Your task to perform on an android device: clear all cookies in the chrome app Image 0: 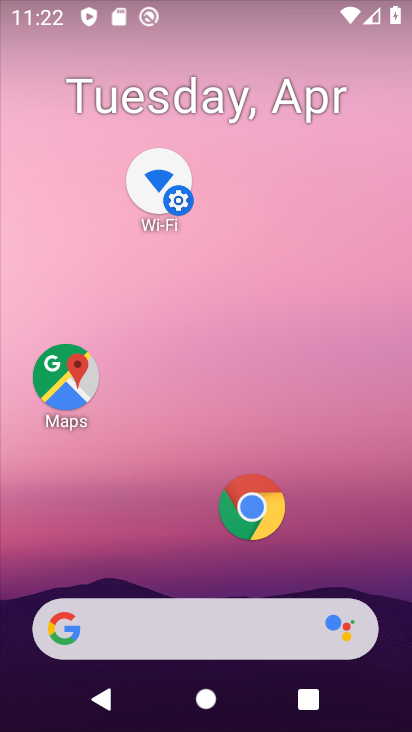
Step 0: click (257, 504)
Your task to perform on an android device: clear all cookies in the chrome app Image 1: 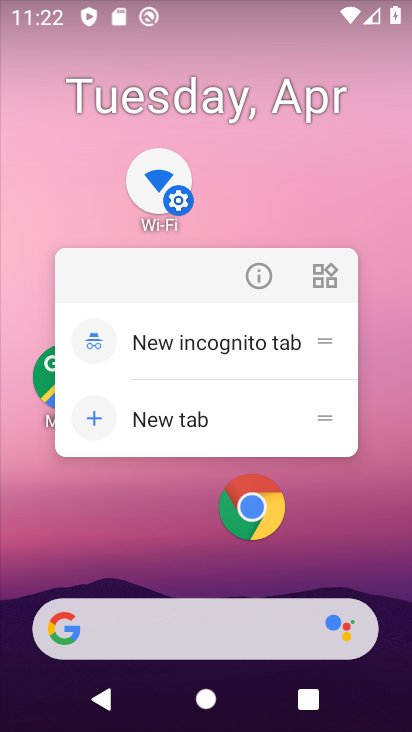
Step 1: click (246, 497)
Your task to perform on an android device: clear all cookies in the chrome app Image 2: 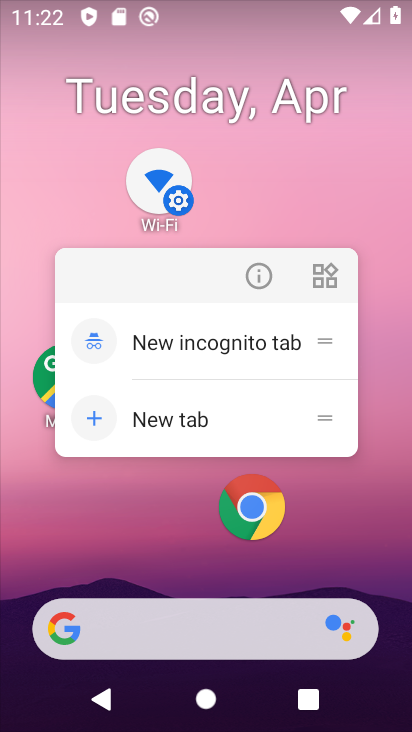
Step 2: click (246, 496)
Your task to perform on an android device: clear all cookies in the chrome app Image 3: 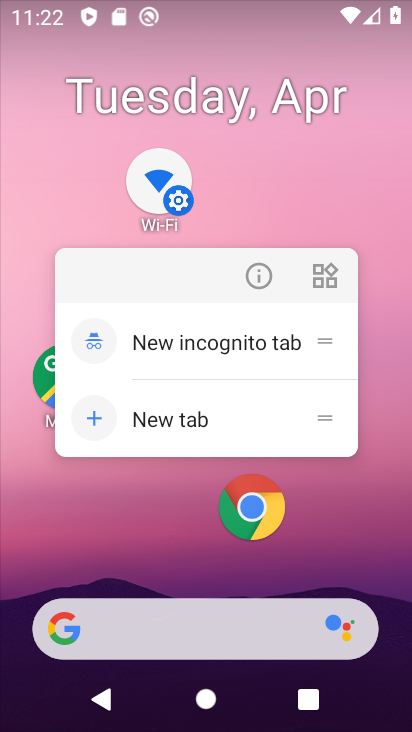
Step 3: click (246, 493)
Your task to perform on an android device: clear all cookies in the chrome app Image 4: 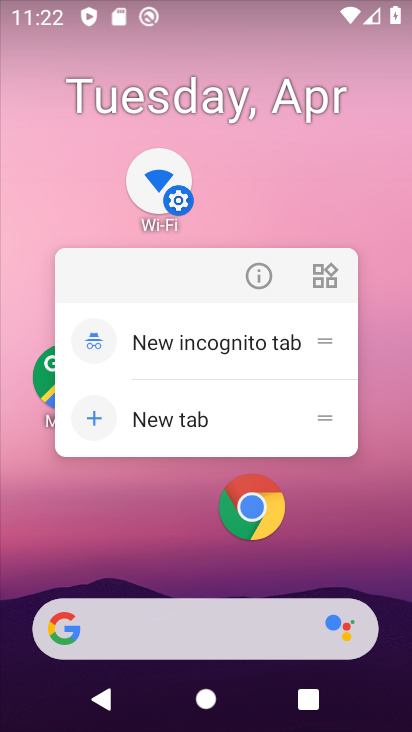
Step 4: click (246, 493)
Your task to perform on an android device: clear all cookies in the chrome app Image 5: 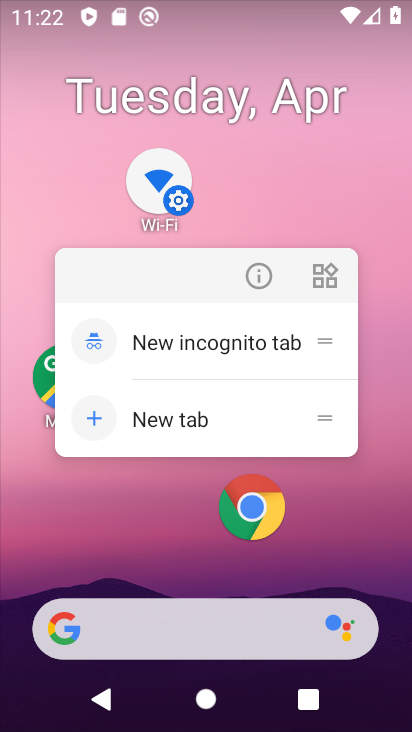
Step 5: click (246, 493)
Your task to perform on an android device: clear all cookies in the chrome app Image 6: 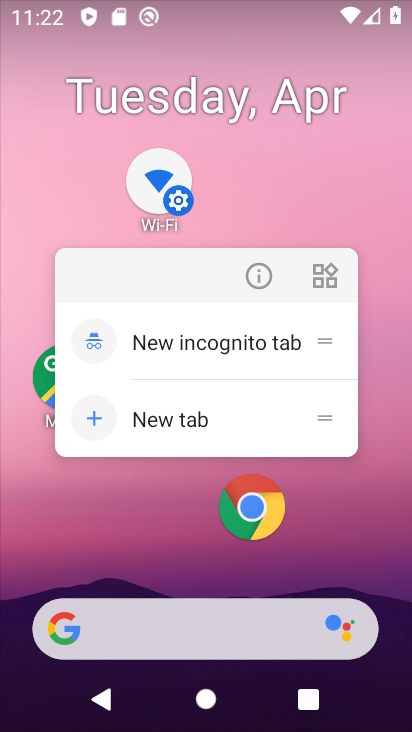
Step 6: click (244, 505)
Your task to perform on an android device: clear all cookies in the chrome app Image 7: 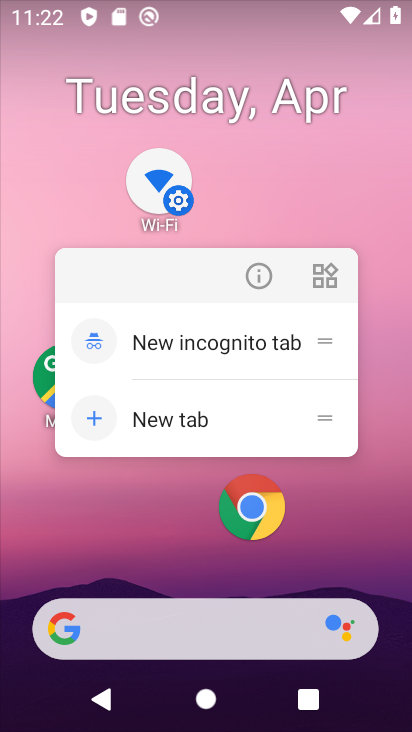
Step 7: click (244, 504)
Your task to perform on an android device: clear all cookies in the chrome app Image 8: 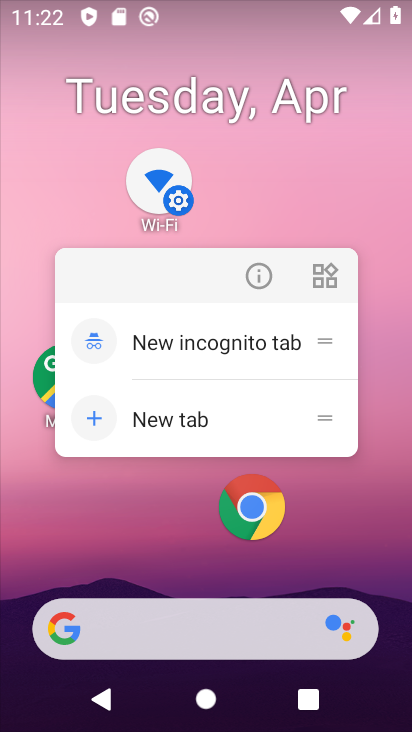
Step 8: click (244, 503)
Your task to perform on an android device: clear all cookies in the chrome app Image 9: 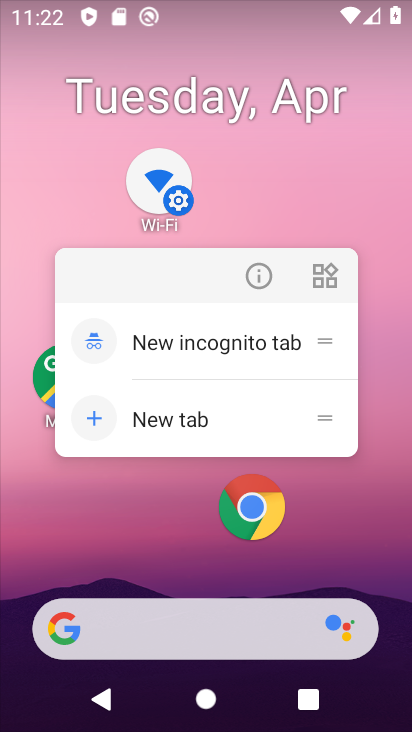
Step 9: click (250, 516)
Your task to perform on an android device: clear all cookies in the chrome app Image 10: 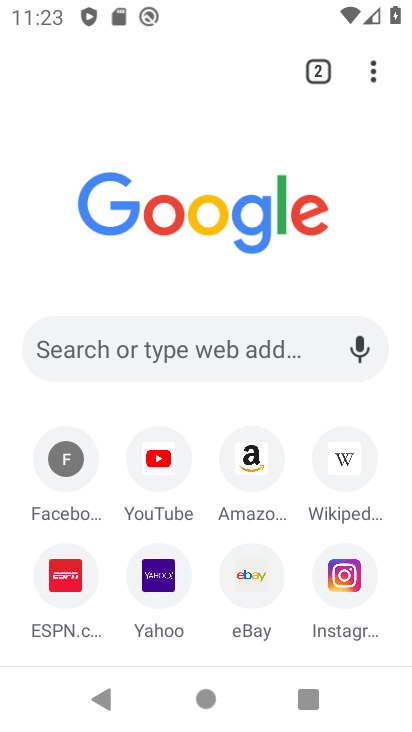
Step 10: click (372, 63)
Your task to perform on an android device: clear all cookies in the chrome app Image 11: 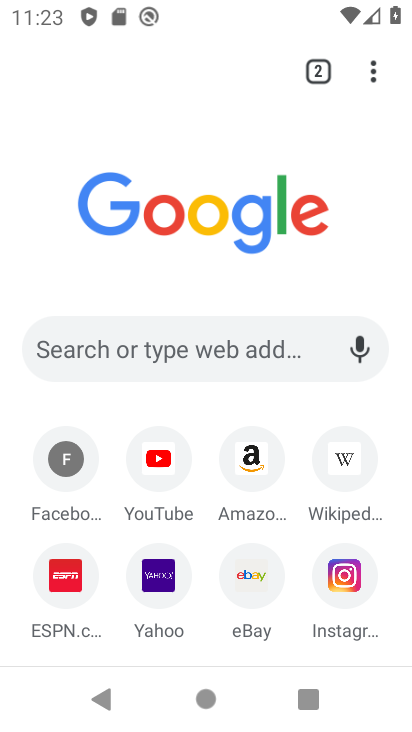
Step 11: click (372, 62)
Your task to perform on an android device: clear all cookies in the chrome app Image 12: 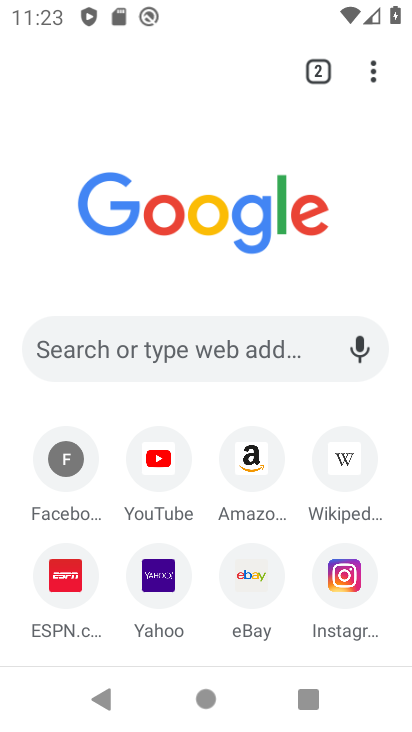
Step 12: click (372, 60)
Your task to perform on an android device: clear all cookies in the chrome app Image 13: 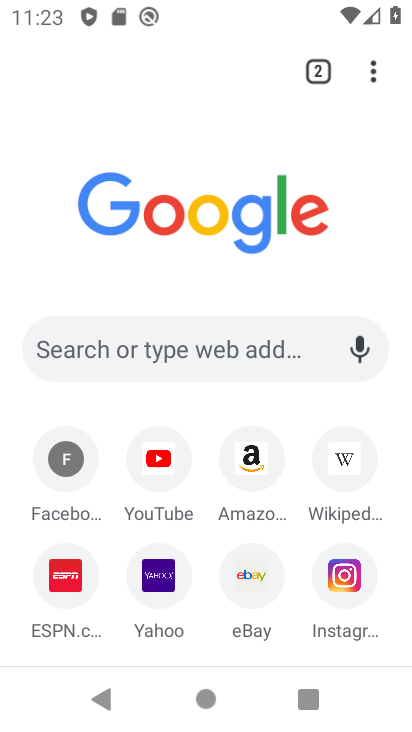
Step 13: click (372, 60)
Your task to perform on an android device: clear all cookies in the chrome app Image 14: 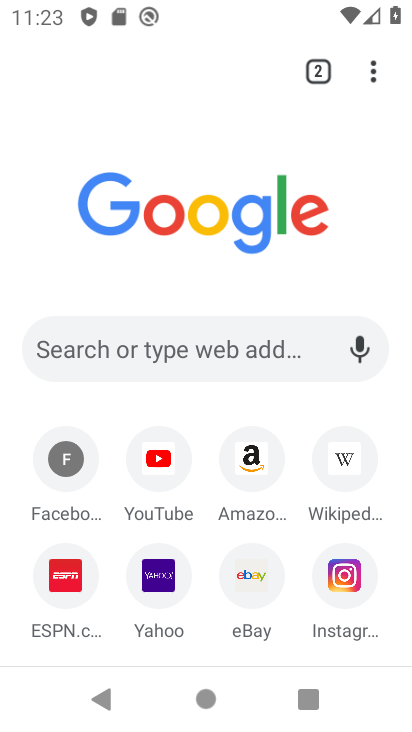
Step 14: click (372, 60)
Your task to perform on an android device: clear all cookies in the chrome app Image 15: 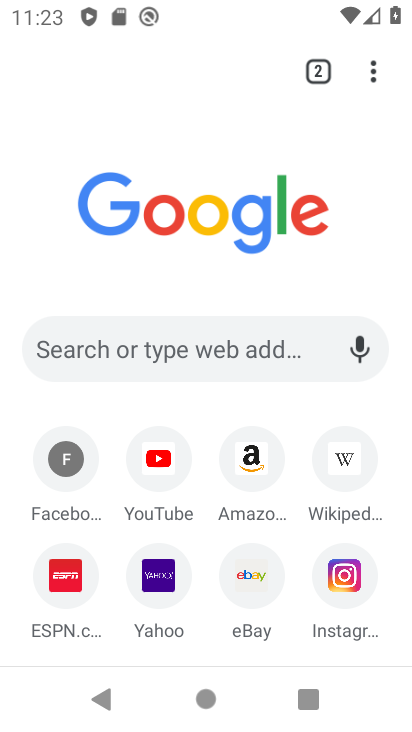
Step 15: click (372, 60)
Your task to perform on an android device: clear all cookies in the chrome app Image 16: 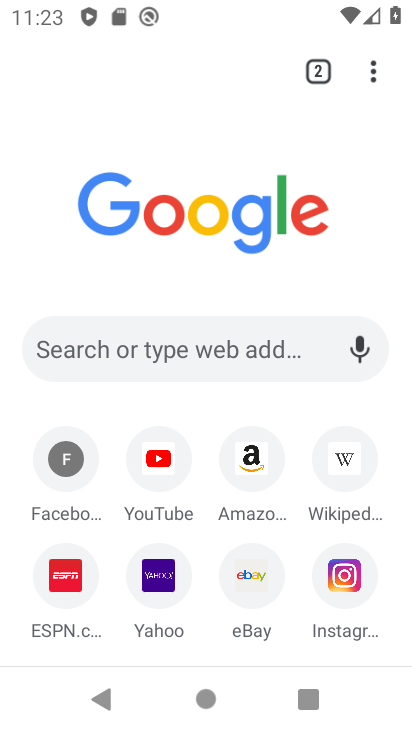
Step 16: click (372, 60)
Your task to perform on an android device: clear all cookies in the chrome app Image 17: 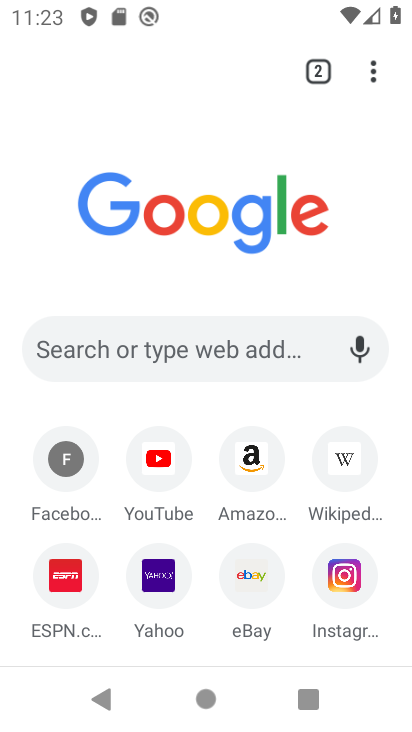
Step 17: click (372, 60)
Your task to perform on an android device: clear all cookies in the chrome app Image 18: 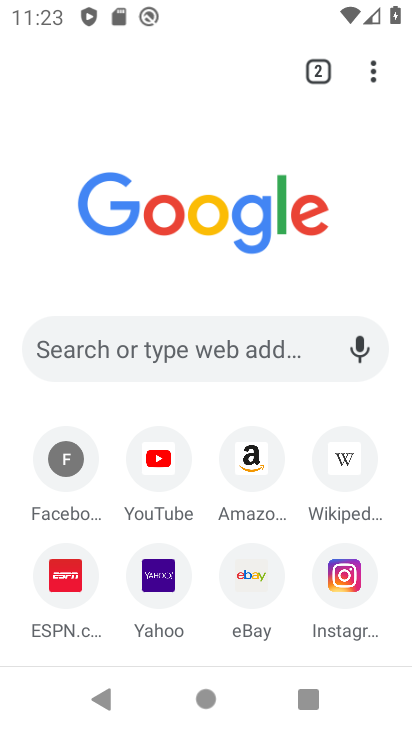
Step 18: click (372, 60)
Your task to perform on an android device: clear all cookies in the chrome app Image 19: 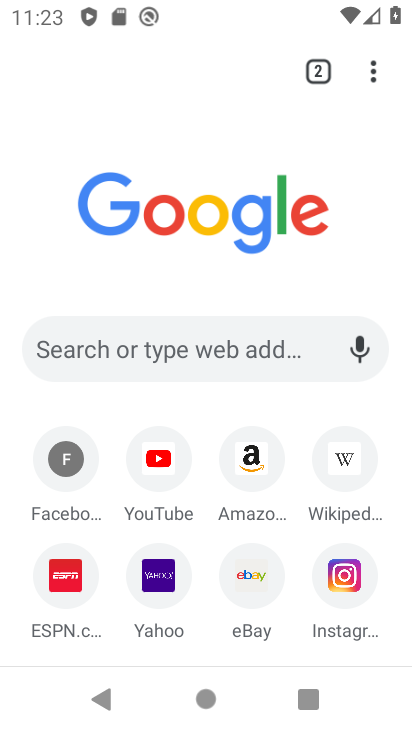
Step 19: click (372, 73)
Your task to perform on an android device: clear all cookies in the chrome app Image 20: 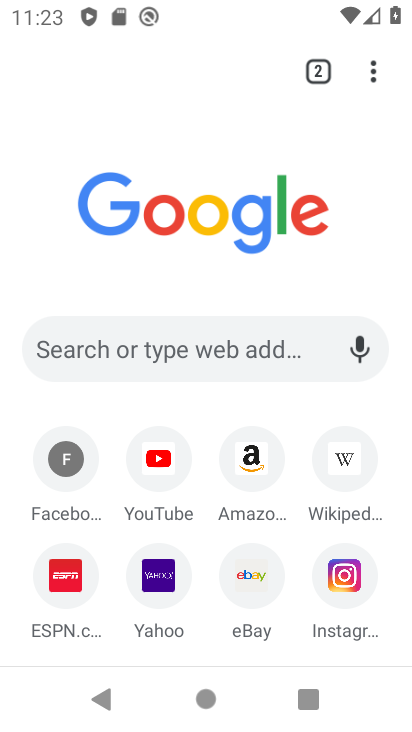
Step 20: click (372, 73)
Your task to perform on an android device: clear all cookies in the chrome app Image 21: 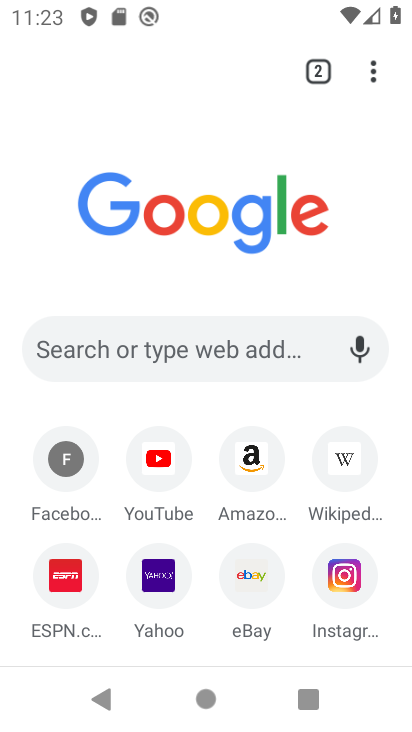
Step 21: click (372, 73)
Your task to perform on an android device: clear all cookies in the chrome app Image 22: 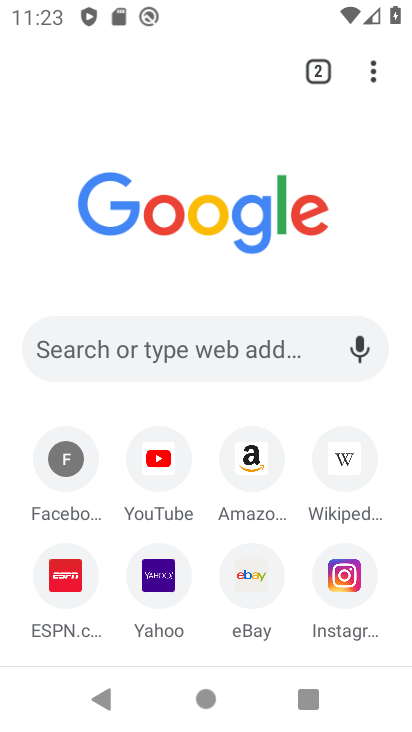
Step 22: click (372, 73)
Your task to perform on an android device: clear all cookies in the chrome app Image 23: 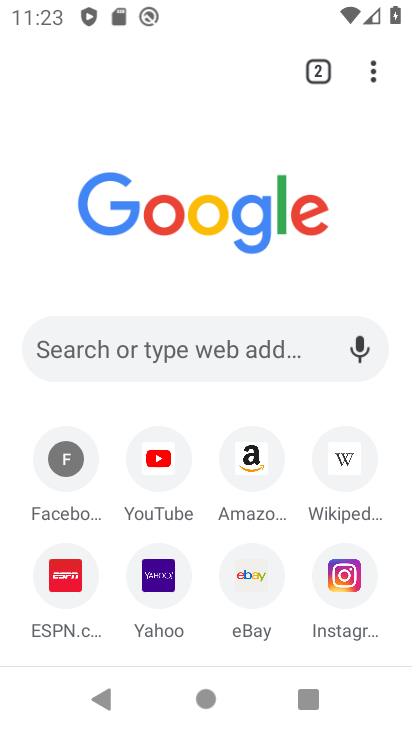
Step 23: click (372, 73)
Your task to perform on an android device: clear all cookies in the chrome app Image 24: 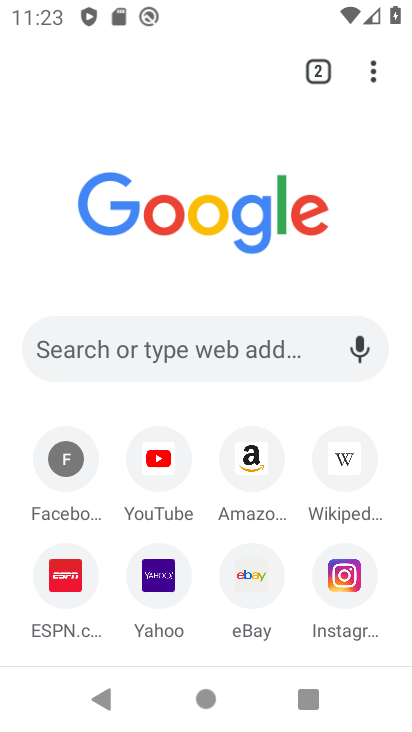
Step 24: click (372, 73)
Your task to perform on an android device: clear all cookies in the chrome app Image 25: 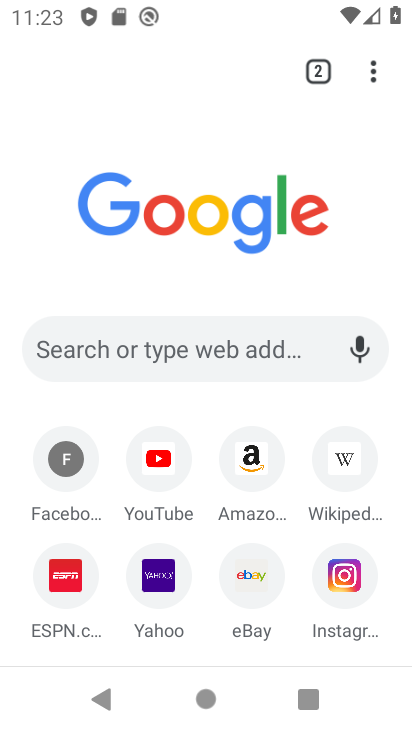
Step 25: click (330, 72)
Your task to perform on an android device: clear all cookies in the chrome app Image 26: 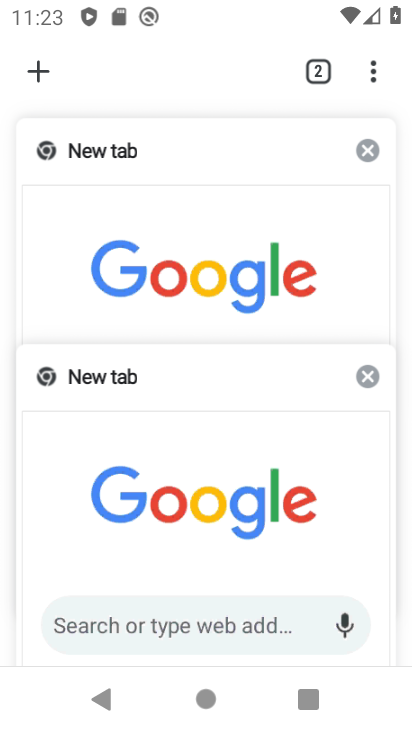
Step 26: click (372, 69)
Your task to perform on an android device: clear all cookies in the chrome app Image 27: 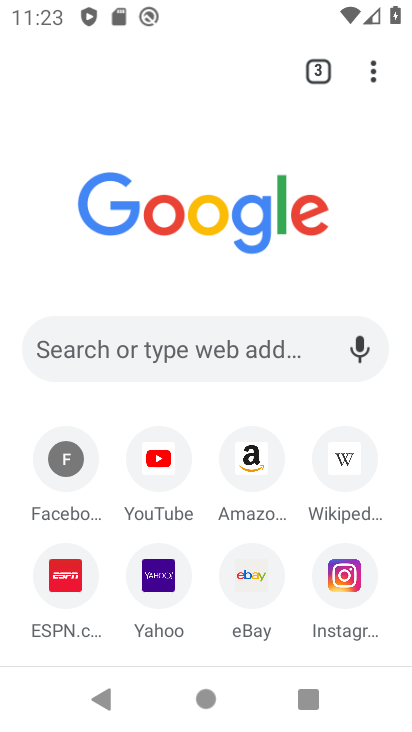
Step 27: click (331, 74)
Your task to perform on an android device: clear all cookies in the chrome app Image 28: 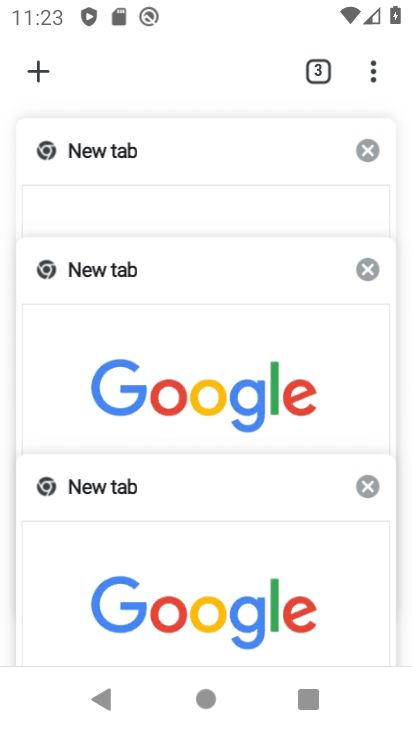
Step 28: click (372, 141)
Your task to perform on an android device: clear all cookies in the chrome app Image 29: 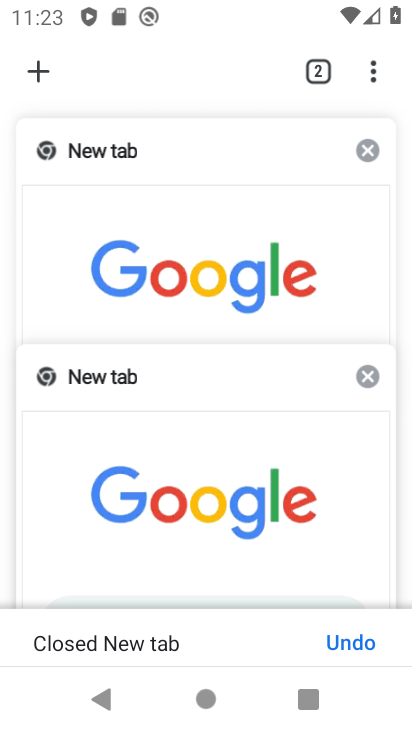
Step 29: click (365, 70)
Your task to perform on an android device: clear all cookies in the chrome app Image 30: 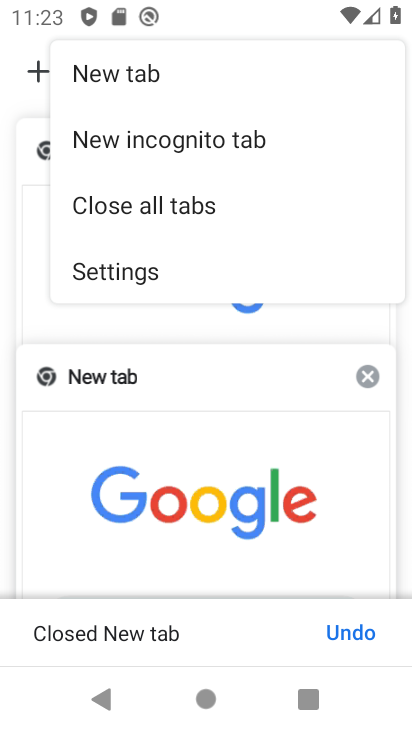
Step 30: click (160, 274)
Your task to perform on an android device: clear all cookies in the chrome app Image 31: 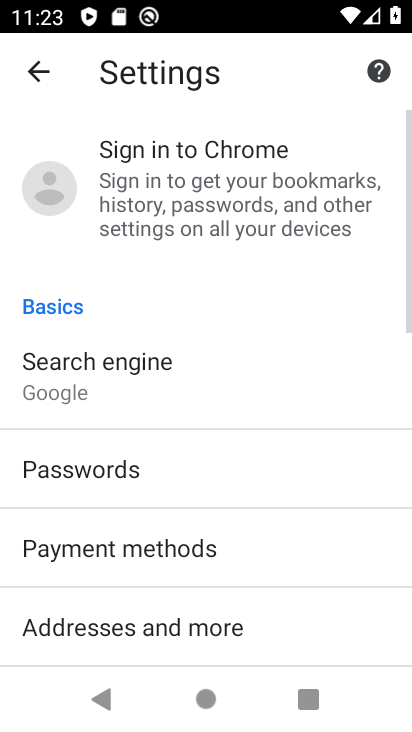
Step 31: drag from (186, 532) to (221, 252)
Your task to perform on an android device: clear all cookies in the chrome app Image 32: 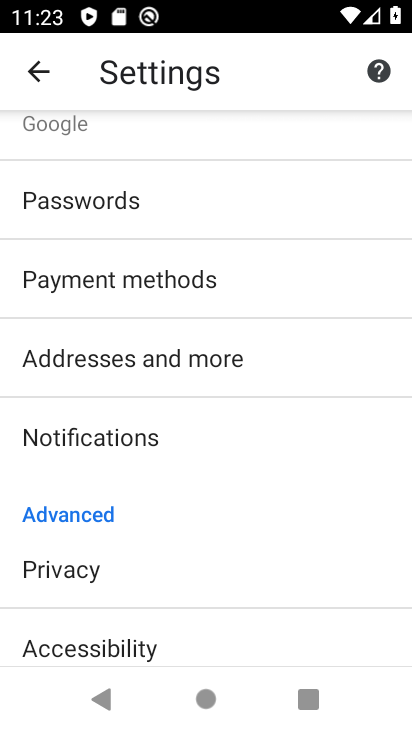
Step 32: drag from (236, 581) to (262, 236)
Your task to perform on an android device: clear all cookies in the chrome app Image 33: 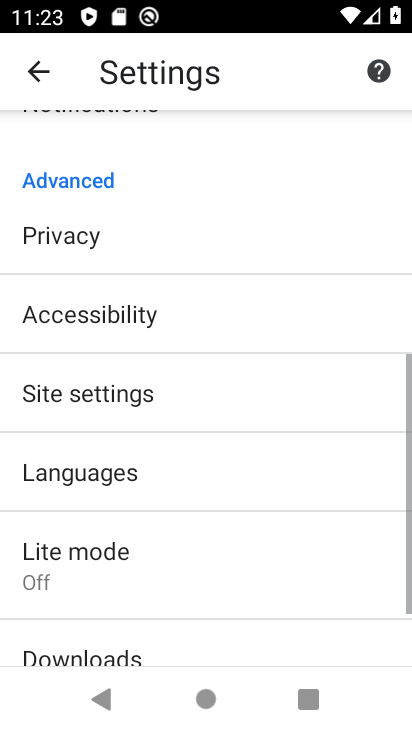
Step 33: click (155, 244)
Your task to perform on an android device: clear all cookies in the chrome app Image 34: 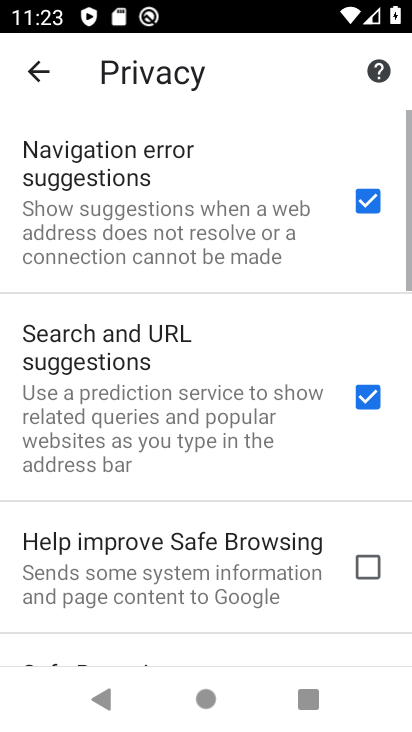
Step 34: drag from (190, 564) to (253, 221)
Your task to perform on an android device: clear all cookies in the chrome app Image 35: 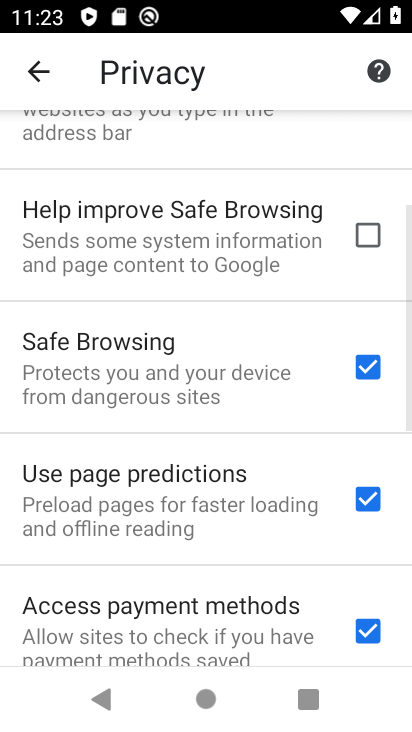
Step 35: drag from (278, 579) to (307, 189)
Your task to perform on an android device: clear all cookies in the chrome app Image 36: 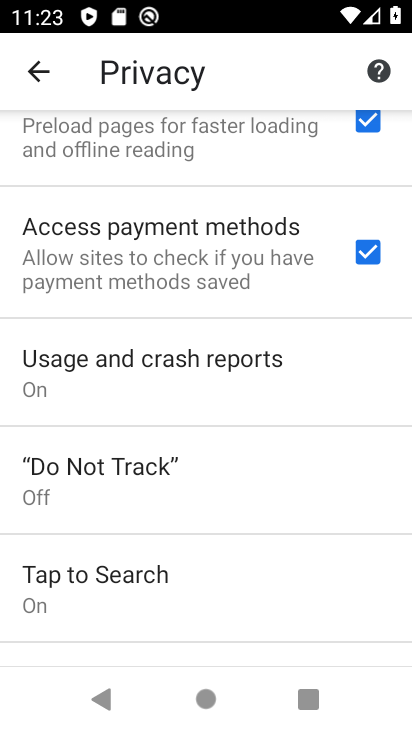
Step 36: drag from (222, 548) to (222, 227)
Your task to perform on an android device: clear all cookies in the chrome app Image 37: 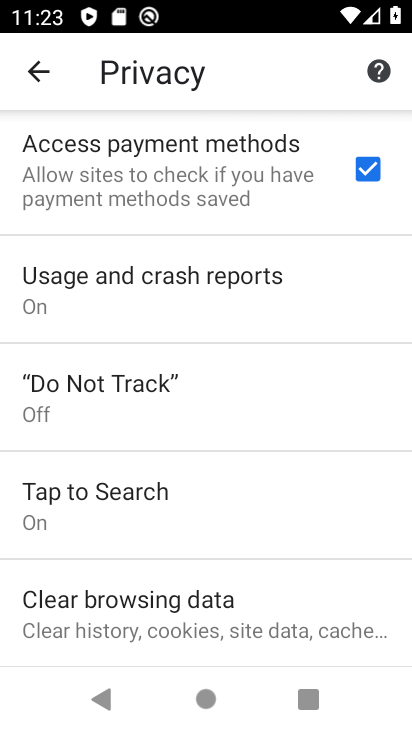
Step 37: click (158, 629)
Your task to perform on an android device: clear all cookies in the chrome app Image 38: 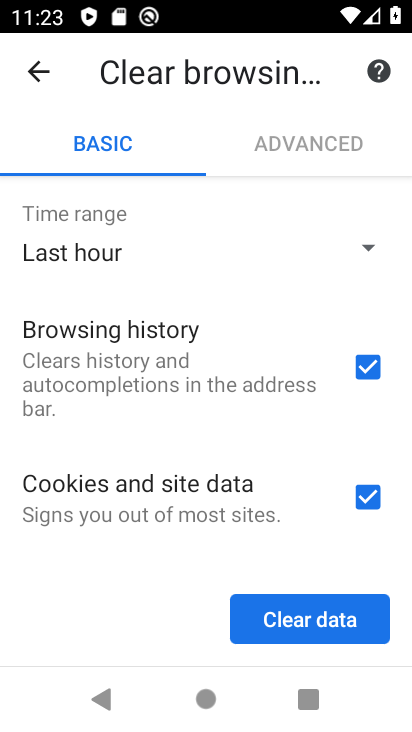
Step 38: drag from (233, 526) to (312, 232)
Your task to perform on an android device: clear all cookies in the chrome app Image 39: 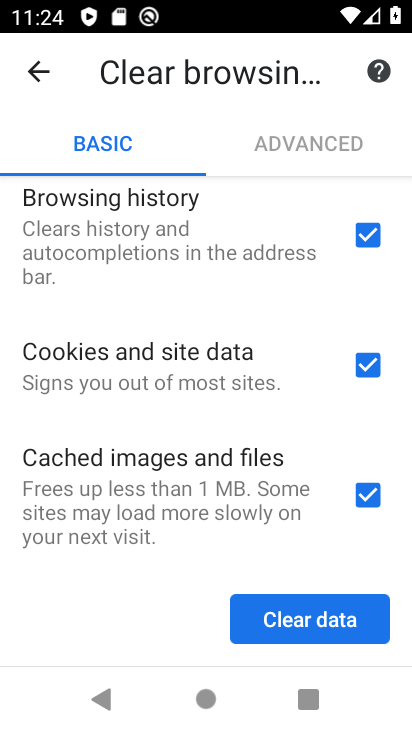
Step 39: click (363, 240)
Your task to perform on an android device: clear all cookies in the chrome app Image 40: 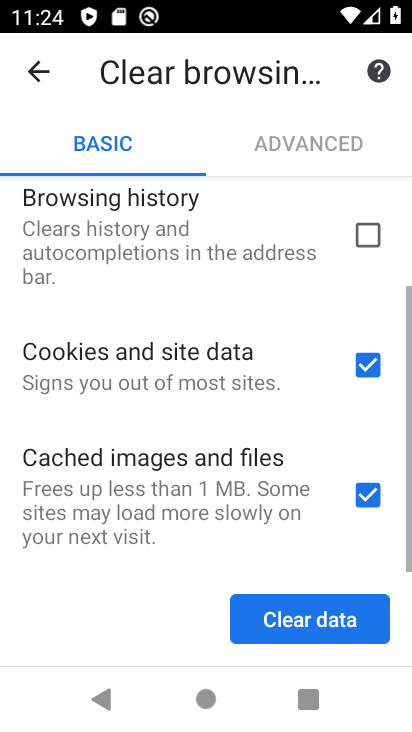
Step 40: click (368, 497)
Your task to perform on an android device: clear all cookies in the chrome app Image 41: 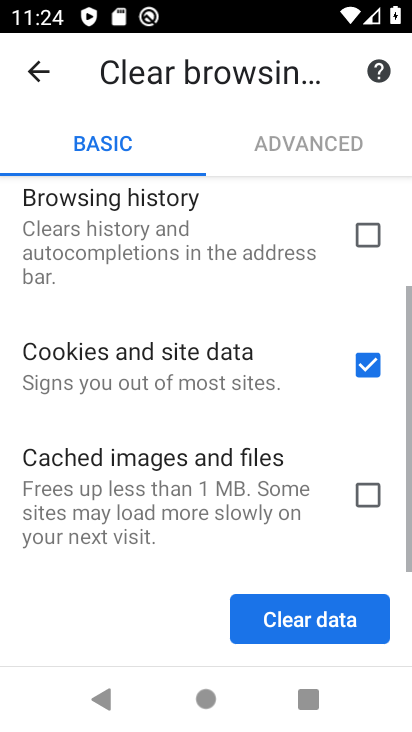
Step 41: drag from (128, 530) to (163, 247)
Your task to perform on an android device: clear all cookies in the chrome app Image 42: 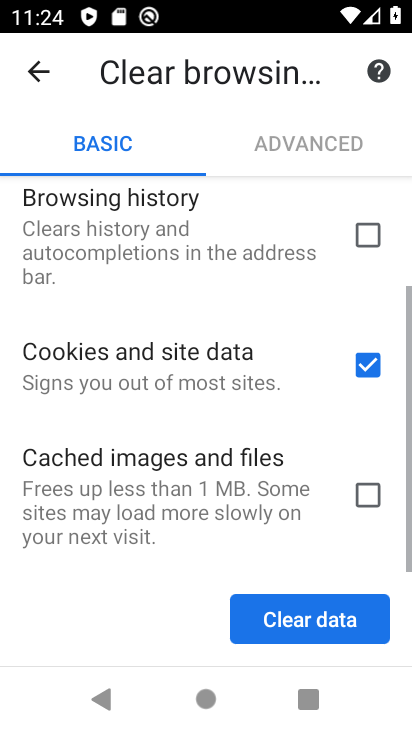
Step 42: click (315, 621)
Your task to perform on an android device: clear all cookies in the chrome app Image 43: 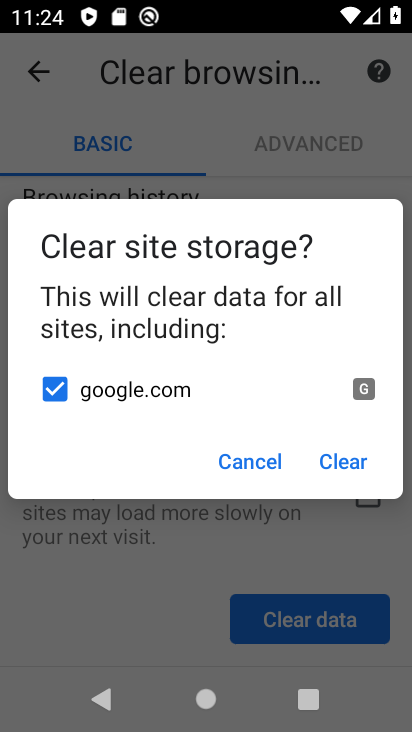
Step 43: click (366, 456)
Your task to perform on an android device: clear all cookies in the chrome app Image 44: 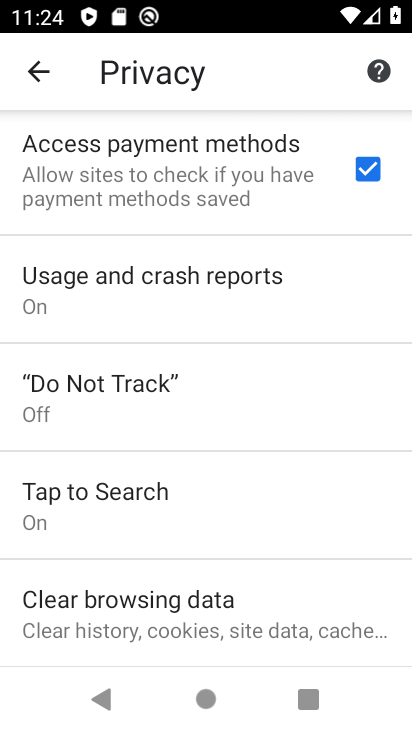
Step 44: task complete